Your task to perform on an android device: change the clock display to digital Image 0: 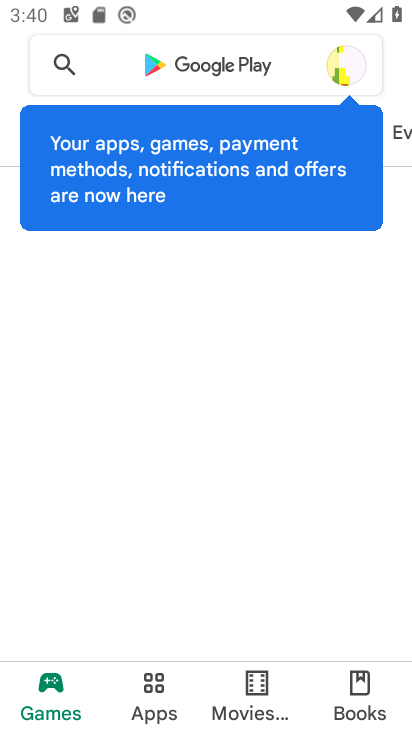
Step 0: press home button
Your task to perform on an android device: change the clock display to digital Image 1: 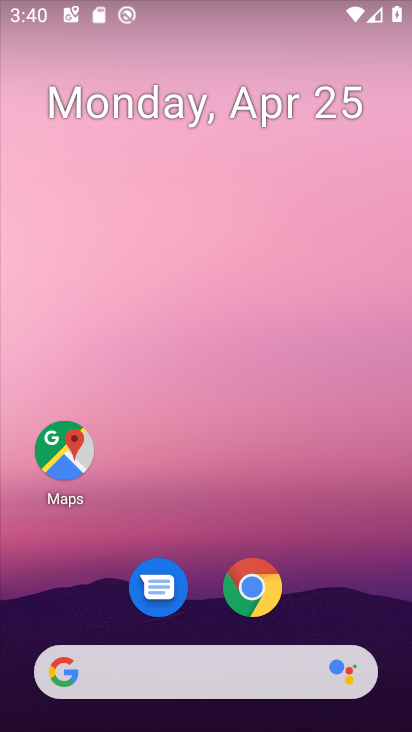
Step 1: drag from (206, 595) to (229, 156)
Your task to perform on an android device: change the clock display to digital Image 2: 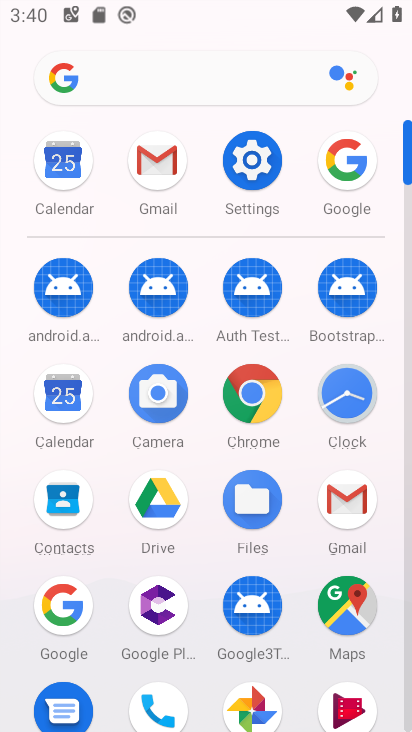
Step 2: click (345, 391)
Your task to perform on an android device: change the clock display to digital Image 3: 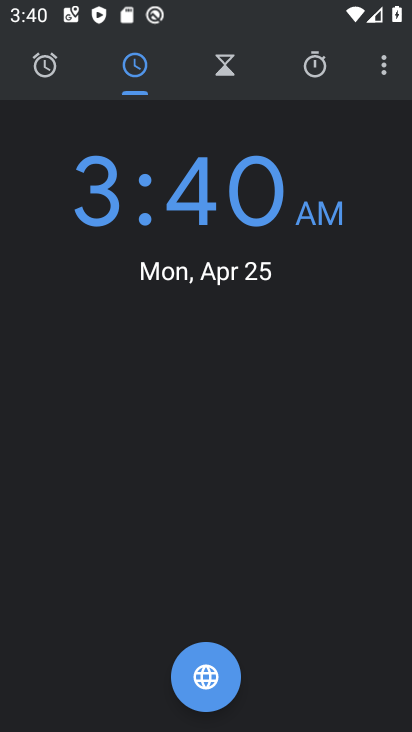
Step 3: click (371, 68)
Your task to perform on an android device: change the clock display to digital Image 4: 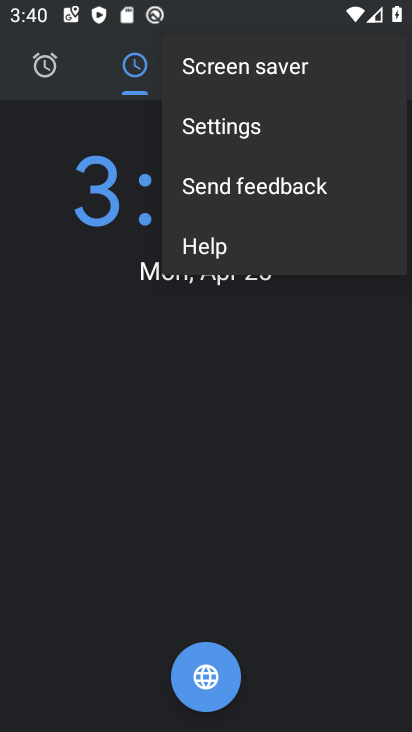
Step 4: click (271, 119)
Your task to perform on an android device: change the clock display to digital Image 5: 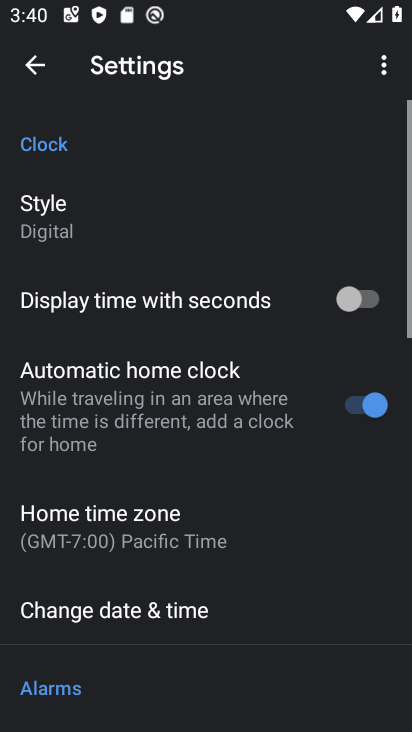
Step 5: click (121, 213)
Your task to perform on an android device: change the clock display to digital Image 6: 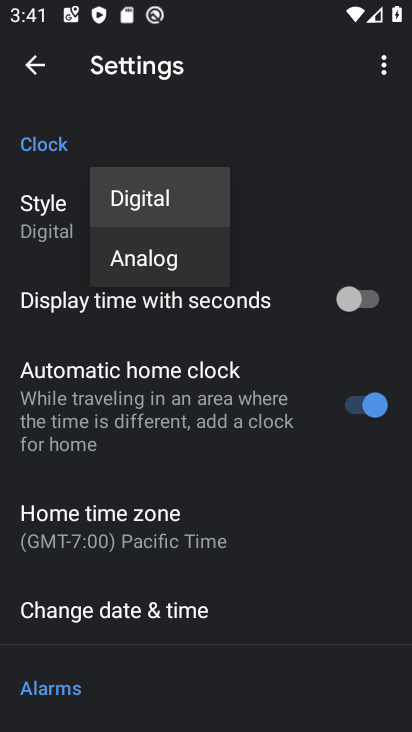
Step 6: task complete